Your task to perform on an android device: change the clock style Image 0: 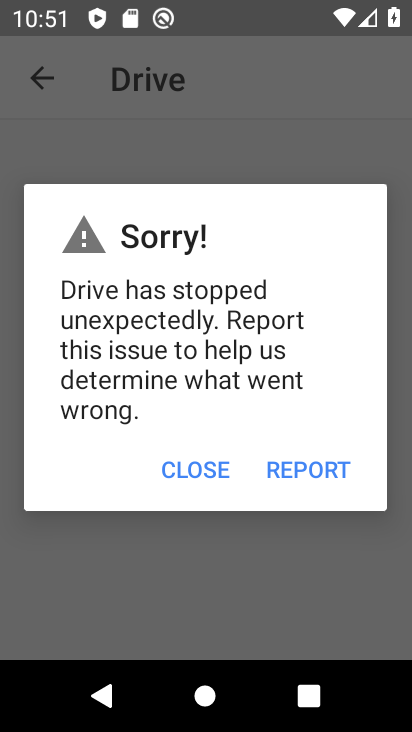
Step 0: press home button
Your task to perform on an android device: change the clock style Image 1: 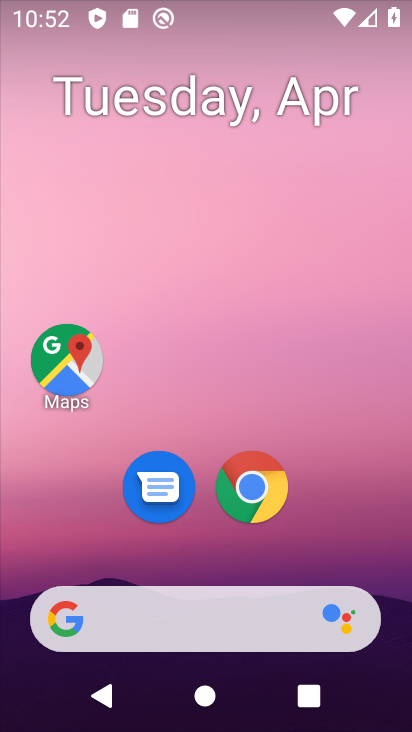
Step 1: drag from (174, 591) to (125, 21)
Your task to perform on an android device: change the clock style Image 2: 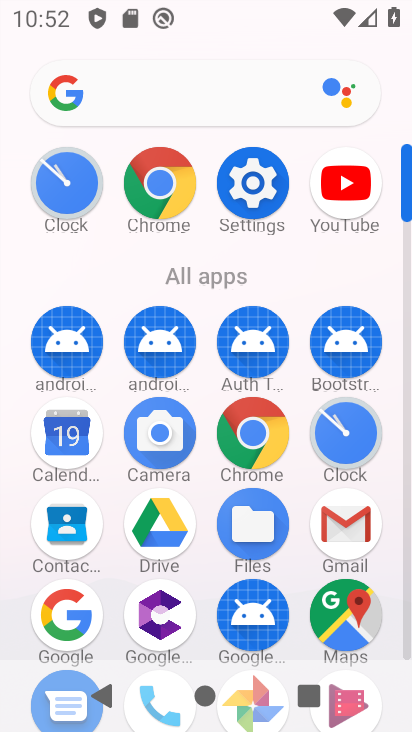
Step 2: click (366, 432)
Your task to perform on an android device: change the clock style Image 3: 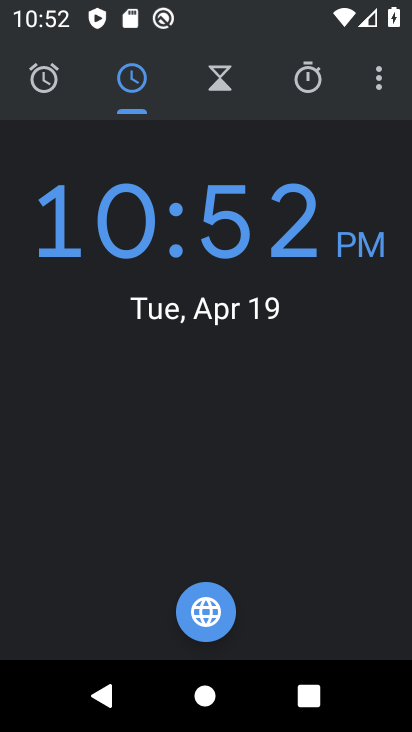
Step 3: click (374, 100)
Your task to perform on an android device: change the clock style Image 4: 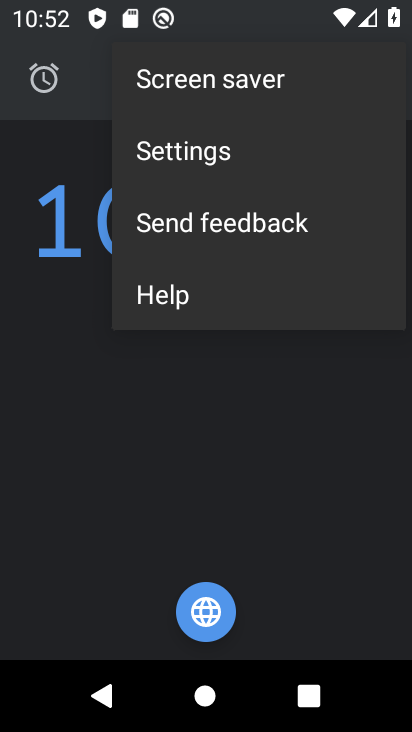
Step 4: click (247, 149)
Your task to perform on an android device: change the clock style Image 5: 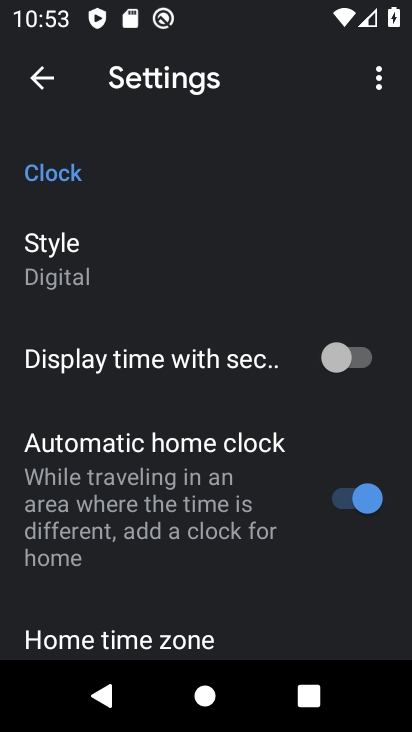
Step 5: click (73, 285)
Your task to perform on an android device: change the clock style Image 6: 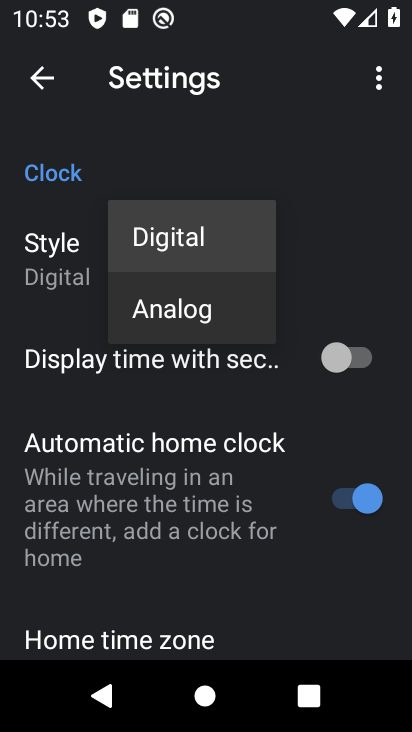
Step 6: click (172, 334)
Your task to perform on an android device: change the clock style Image 7: 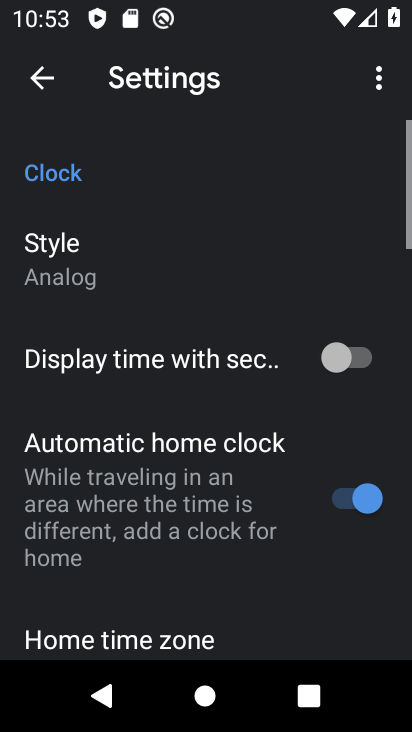
Step 7: task complete